Your task to perform on an android device: Open Google Chrome Image 0: 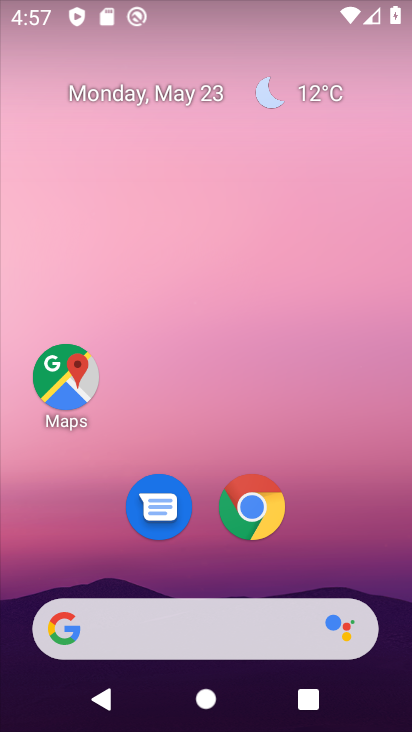
Step 0: click (246, 512)
Your task to perform on an android device: Open Google Chrome Image 1: 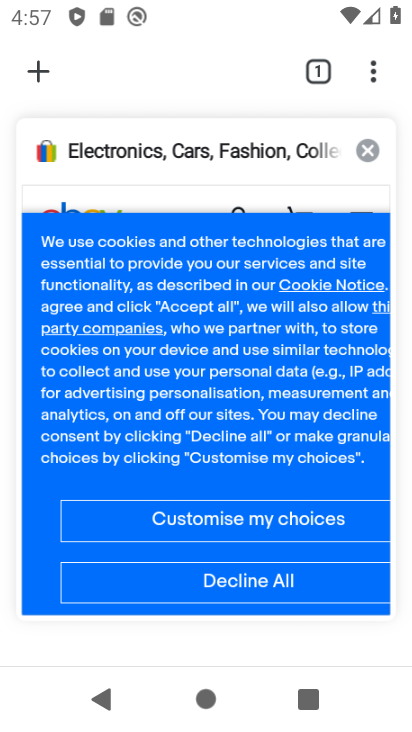
Step 1: click (367, 150)
Your task to perform on an android device: Open Google Chrome Image 2: 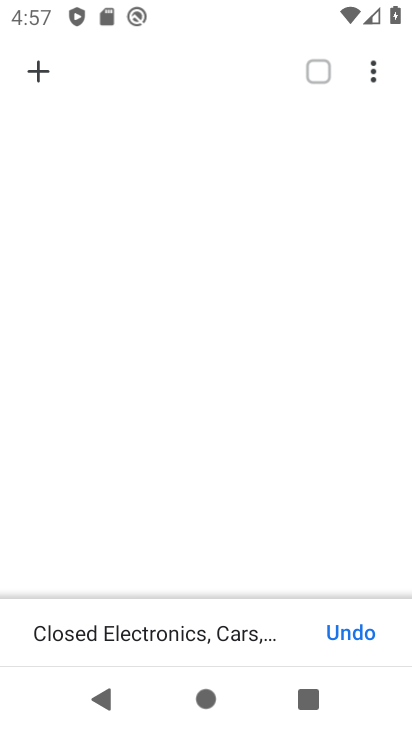
Step 2: task complete